Your task to perform on an android device: Open calendar and show me the first week of next month Image 0: 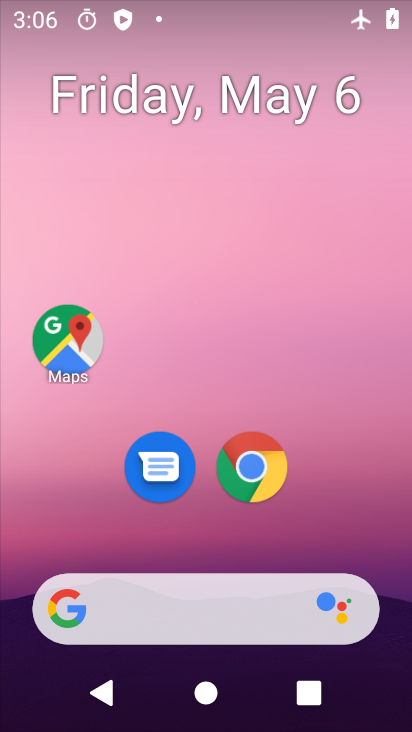
Step 0: drag from (403, 541) to (403, 253)
Your task to perform on an android device: Open calendar and show me the first week of next month Image 1: 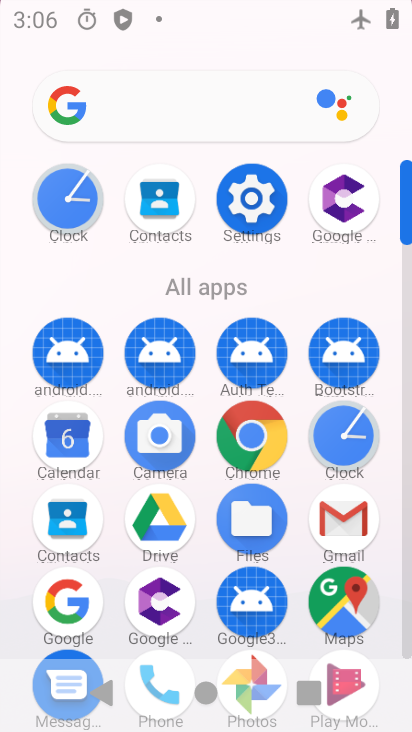
Step 1: drag from (399, 488) to (394, 280)
Your task to perform on an android device: Open calendar and show me the first week of next month Image 2: 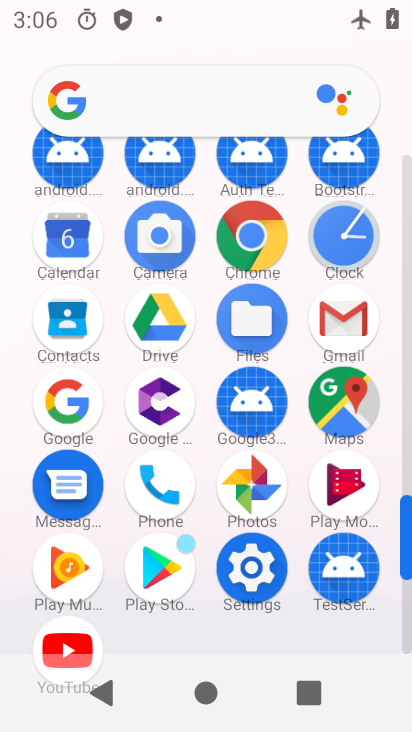
Step 2: click (69, 242)
Your task to perform on an android device: Open calendar and show me the first week of next month Image 3: 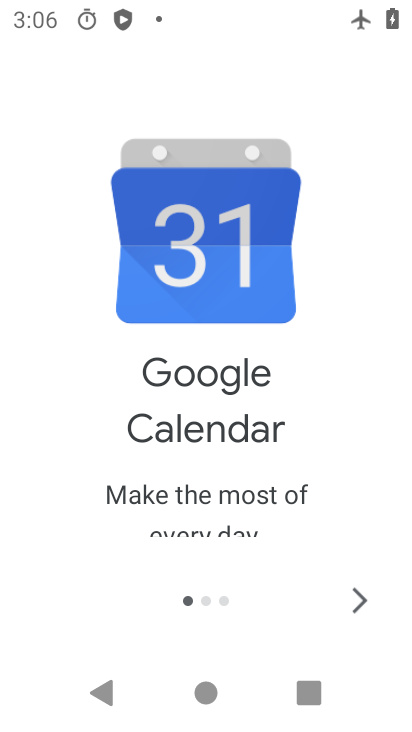
Step 3: click (343, 588)
Your task to perform on an android device: Open calendar and show me the first week of next month Image 4: 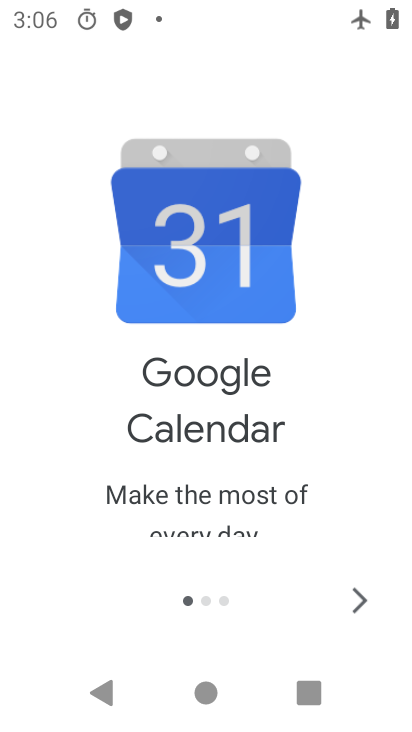
Step 4: click (343, 588)
Your task to perform on an android device: Open calendar and show me the first week of next month Image 5: 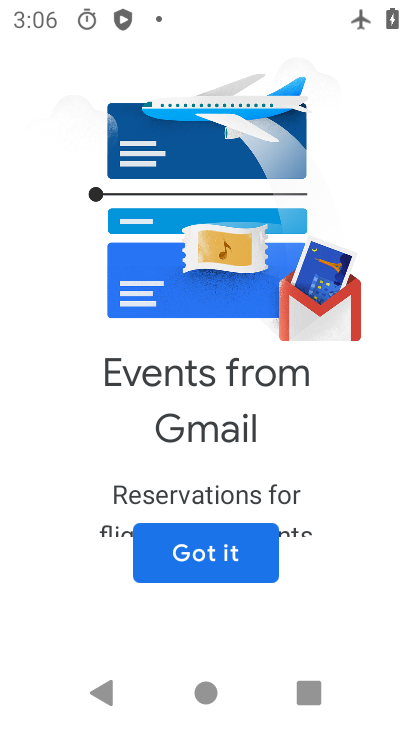
Step 5: click (353, 598)
Your task to perform on an android device: Open calendar and show me the first week of next month Image 6: 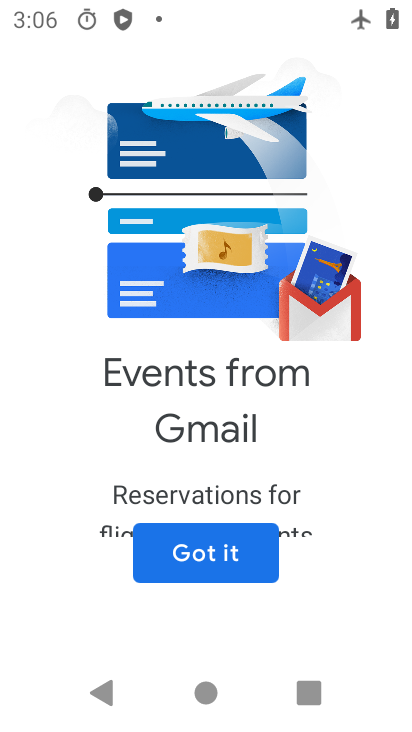
Step 6: click (216, 552)
Your task to perform on an android device: Open calendar and show me the first week of next month Image 7: 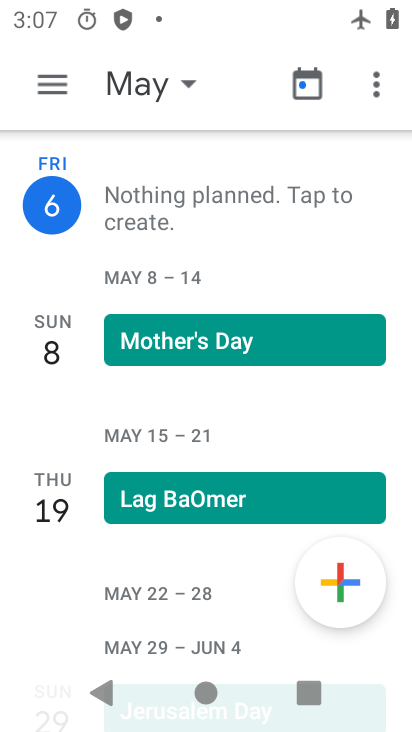
Step 7: press back button
Your task to perform on an android device: Open calendar and show me the first week of next month Image 8: 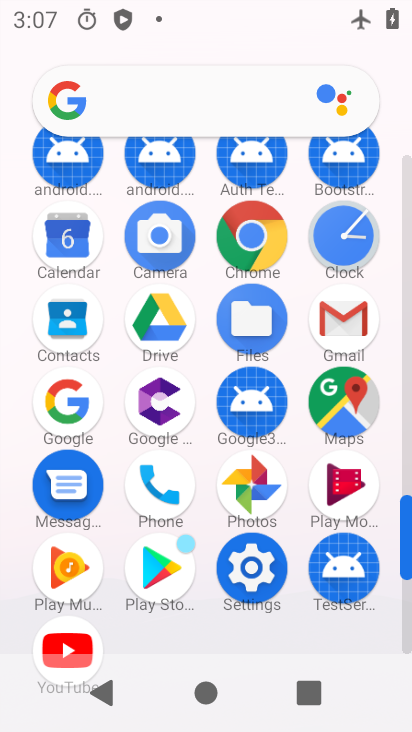
Step 8: click (64, 240)
Your task to perform on an android device: Open calendar and show me the first week of next month Image 9: 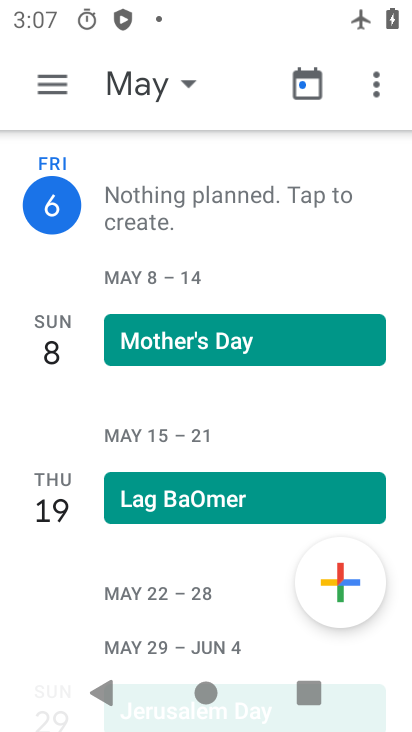
Step 9: click (375, 86)
Your task to perform on an android device: Open calendar and show me the first week of next month Image 10: 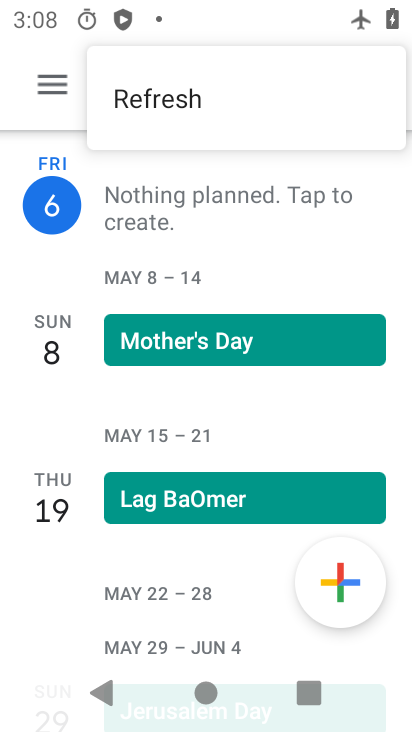
Step 10: click (397, 223)
Your task to perform on an android device: Open calendar and show me the first week of next month Image 11: 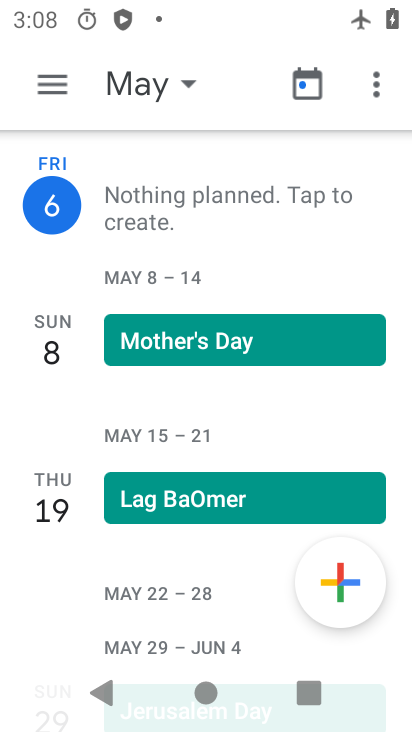
Step 11: task complete